Your task to perform on an android device: turn on bluetooth scan Image 0: 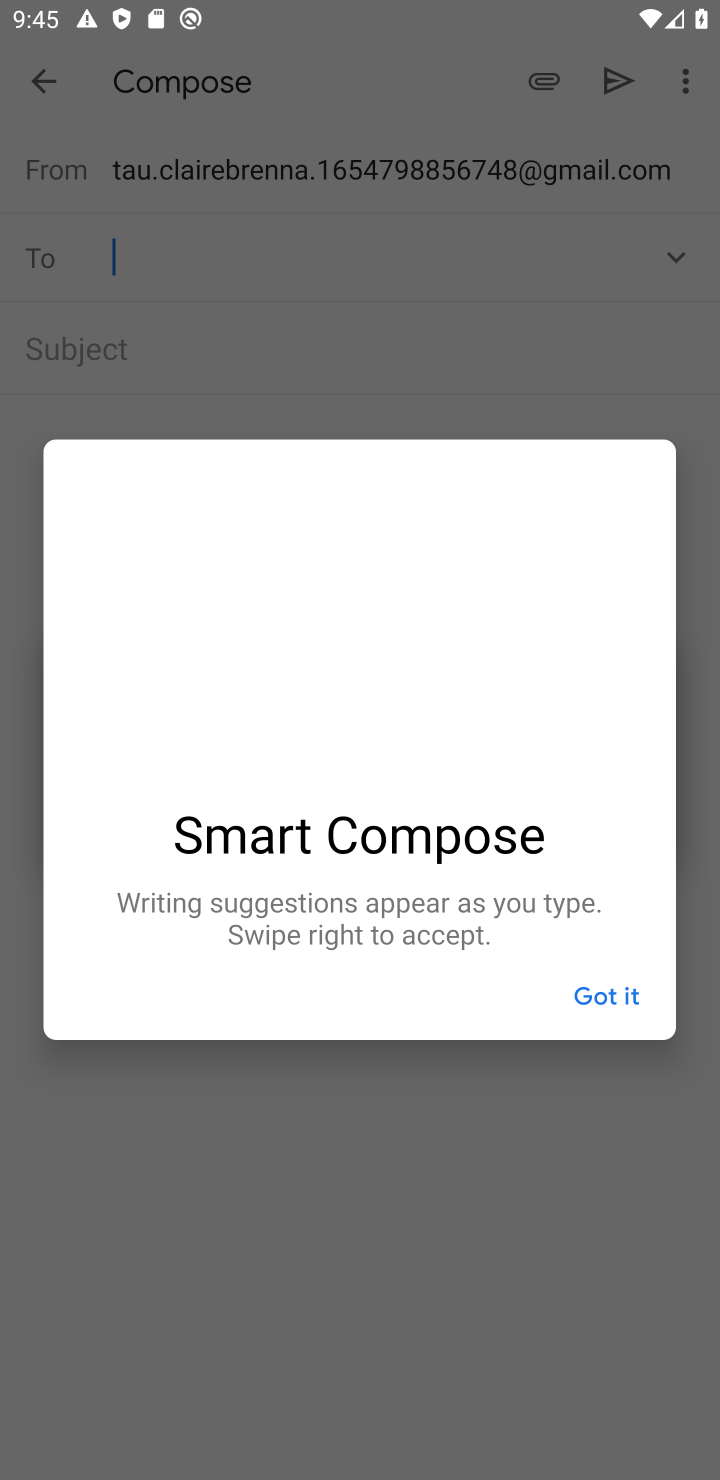
Step 0: press home button
Your task to perform on an android device: turn on bluetooth scan Image 1: 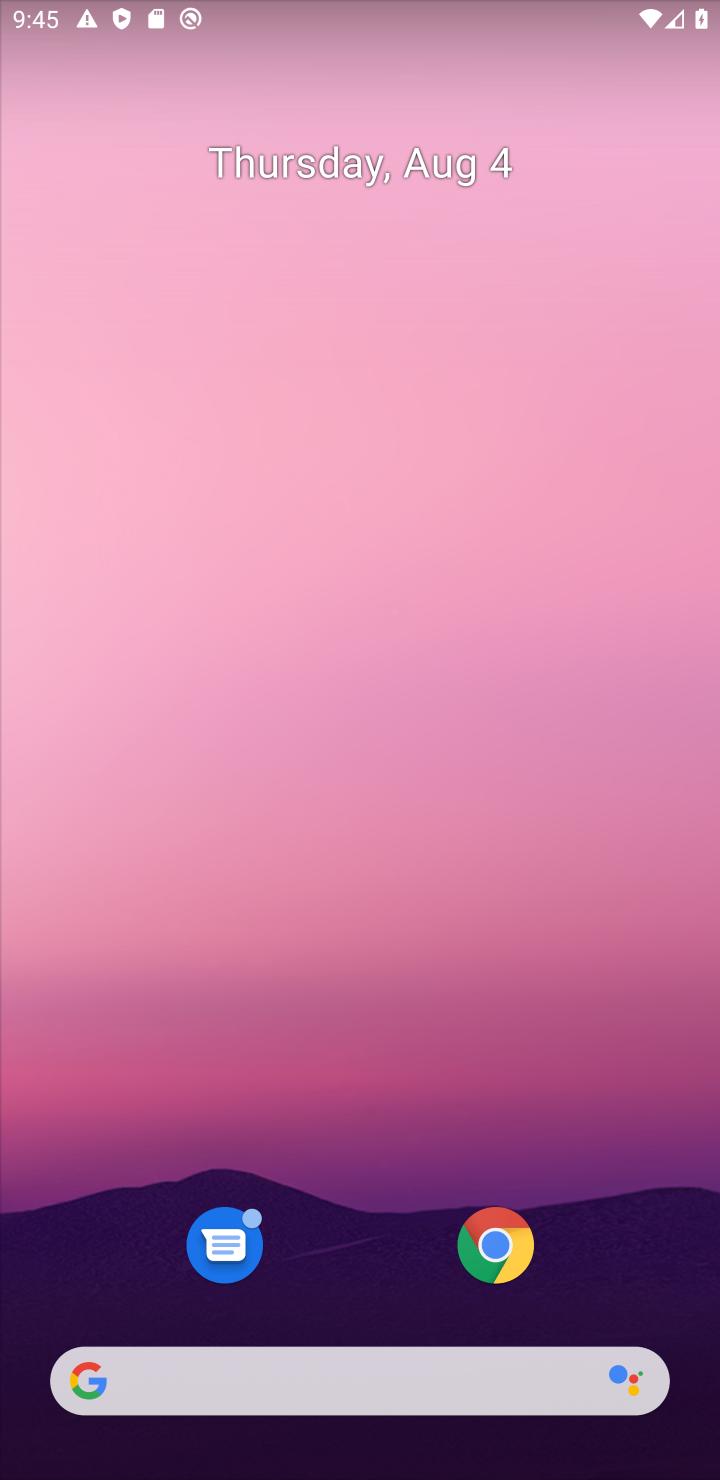
Step 1: drag from (419, 630) to (433, 244)
Your task to perform on an android device: turn on bluetooth scan Image 2: 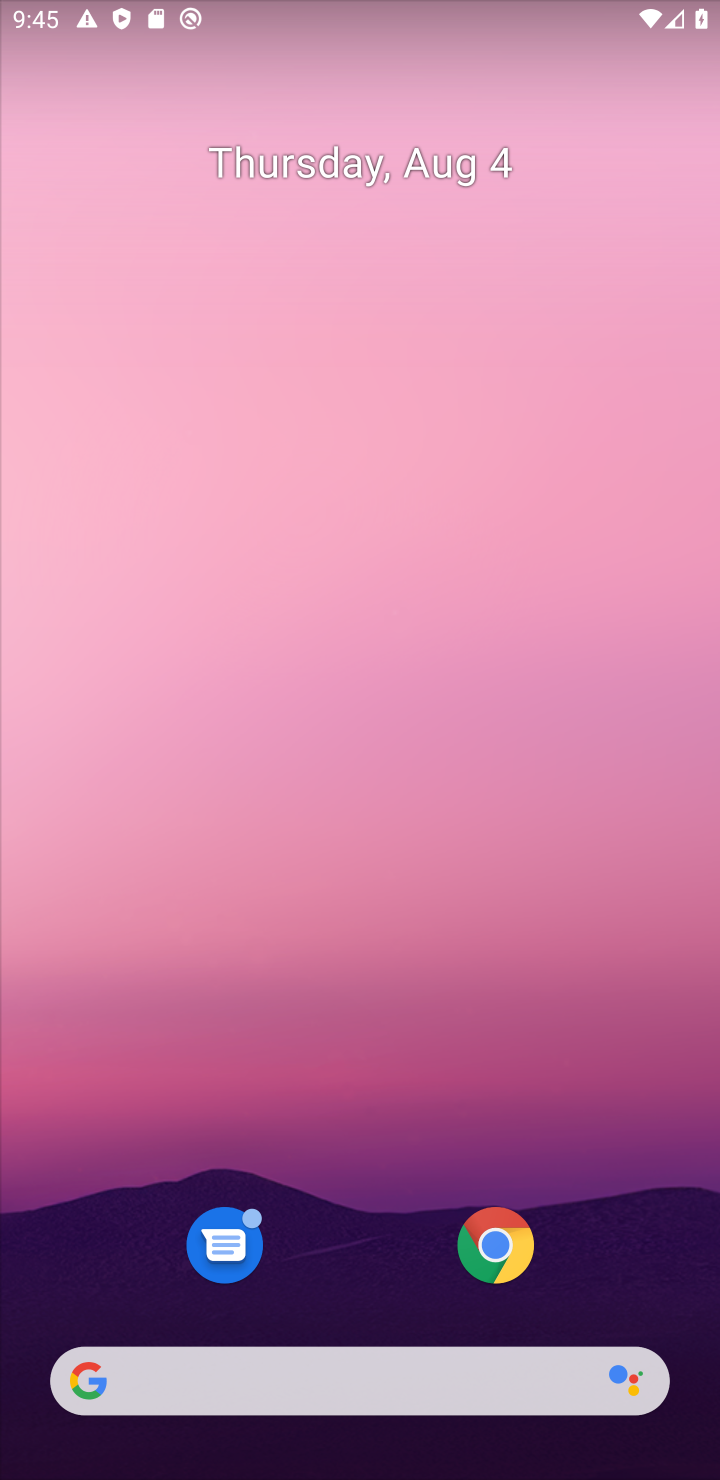
Step 2: drag from (329, 1177) to (218, 359)
Your task to perform on an android device: turn on bluetooth scan Image 3: 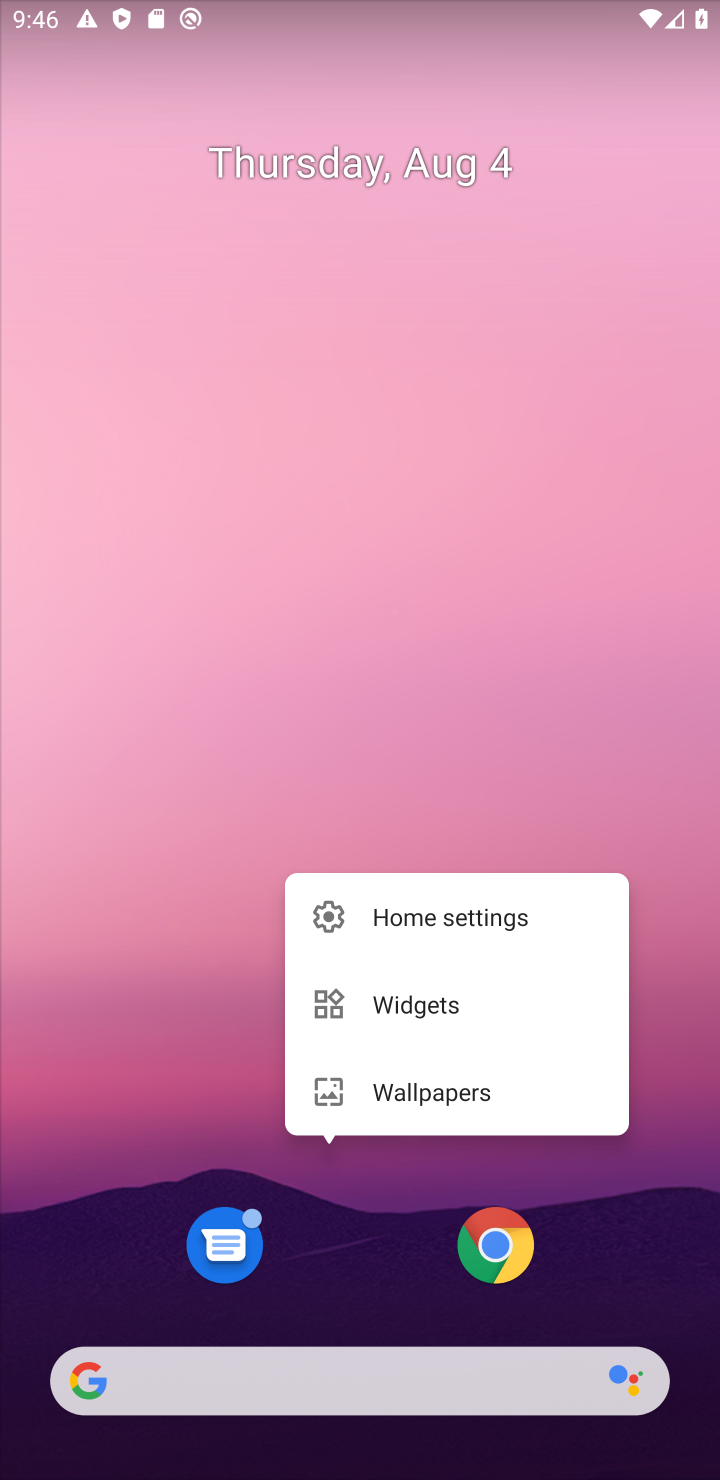
Step 3: click (366, 484)
Your task to perform on an android device: turn on bluetooth scan Image 4: 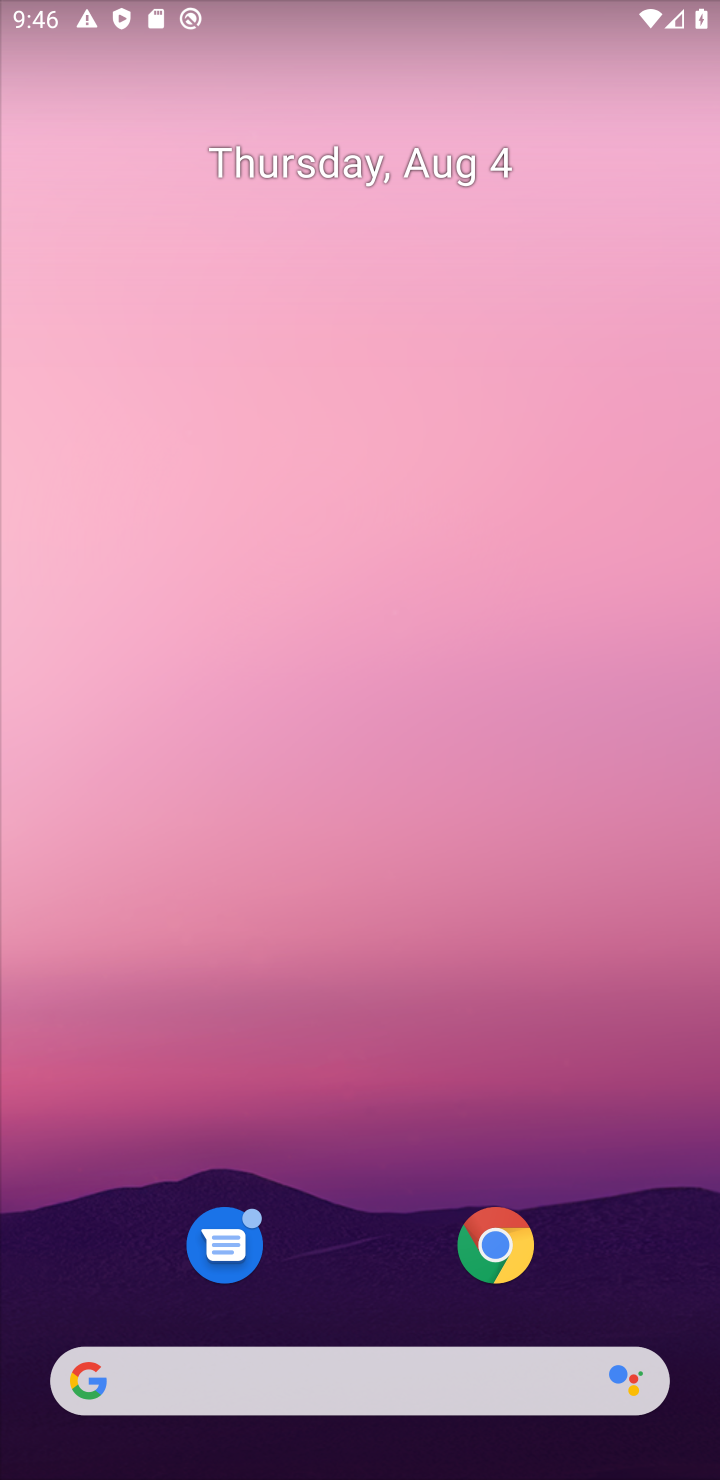
Step 4: drag from (629, 1175) to (570, 258)
Your task to perform on an android device: turn on bluetooth scan Image 5: 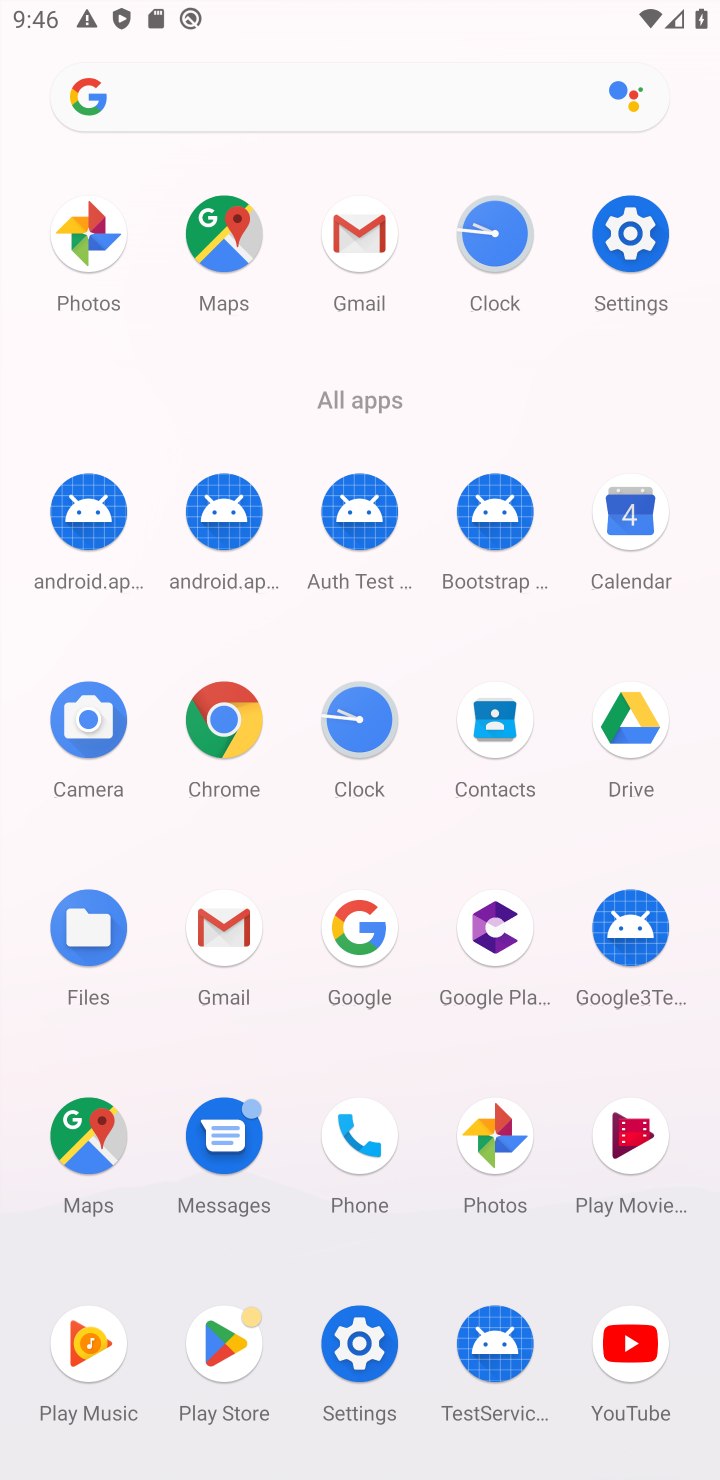
Step 5: click (356, 1337)
Your task to perform on an android device: turn on bluetooth scan Image 6: 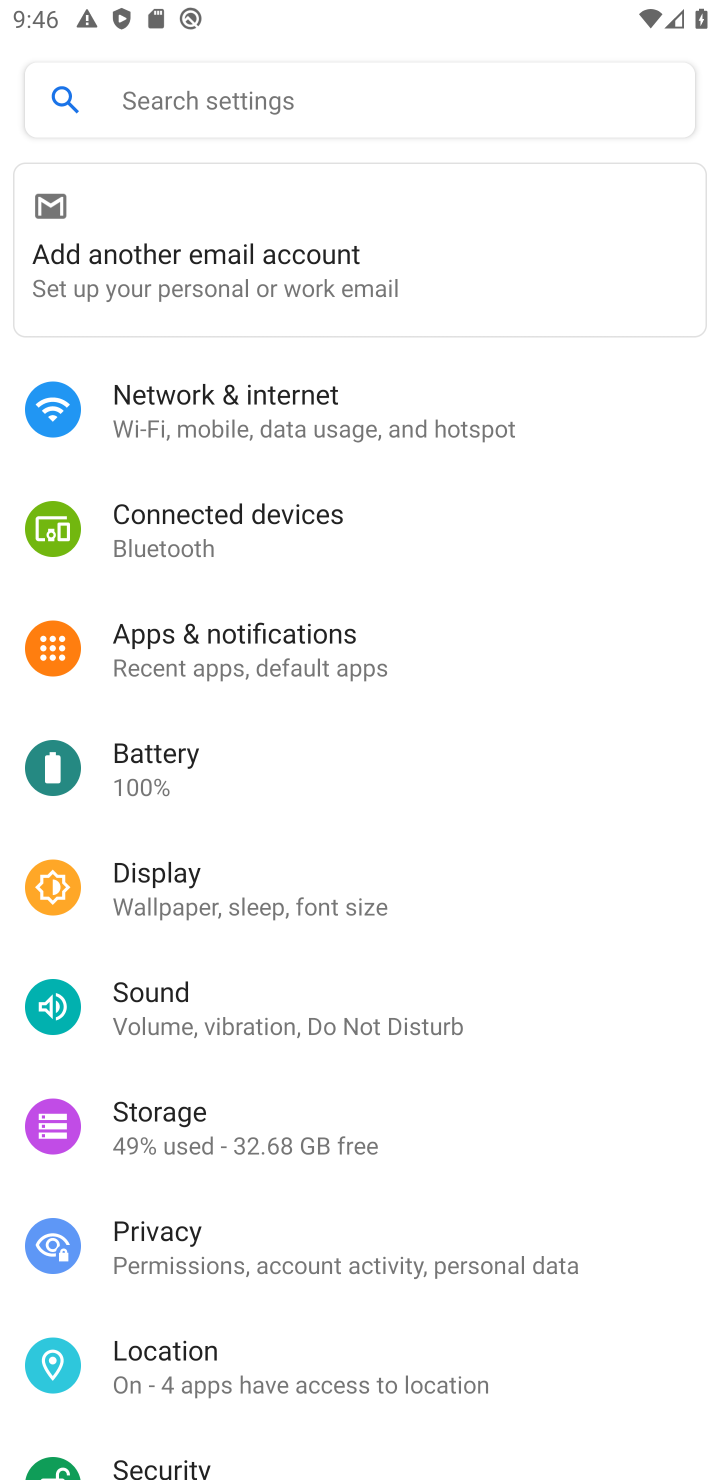
Step 6: click (160, 1362)
Your task to perform on an android device: turn on bluetooth scan Image 7: 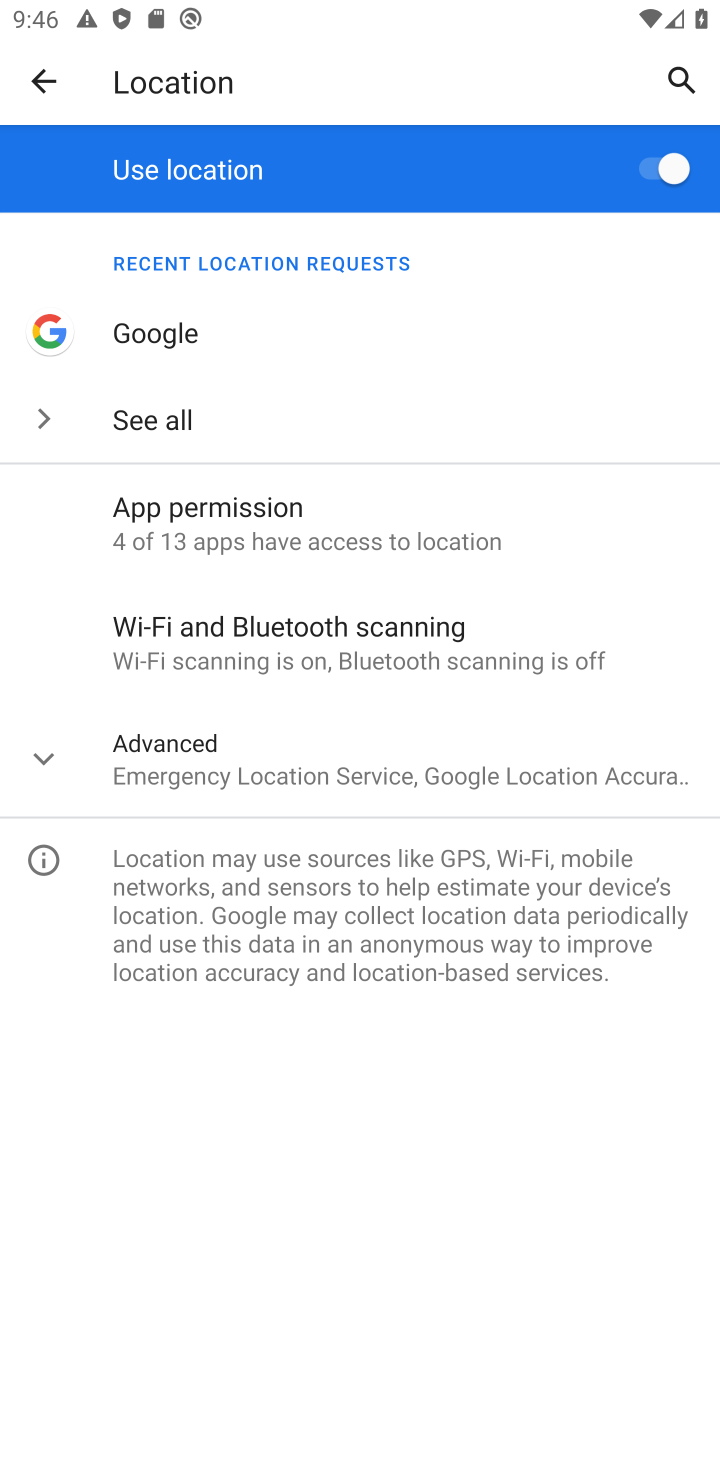
Step 7: click (206, 680)
Your task to perform on an android device: turn on bluetooth scan Image 8: 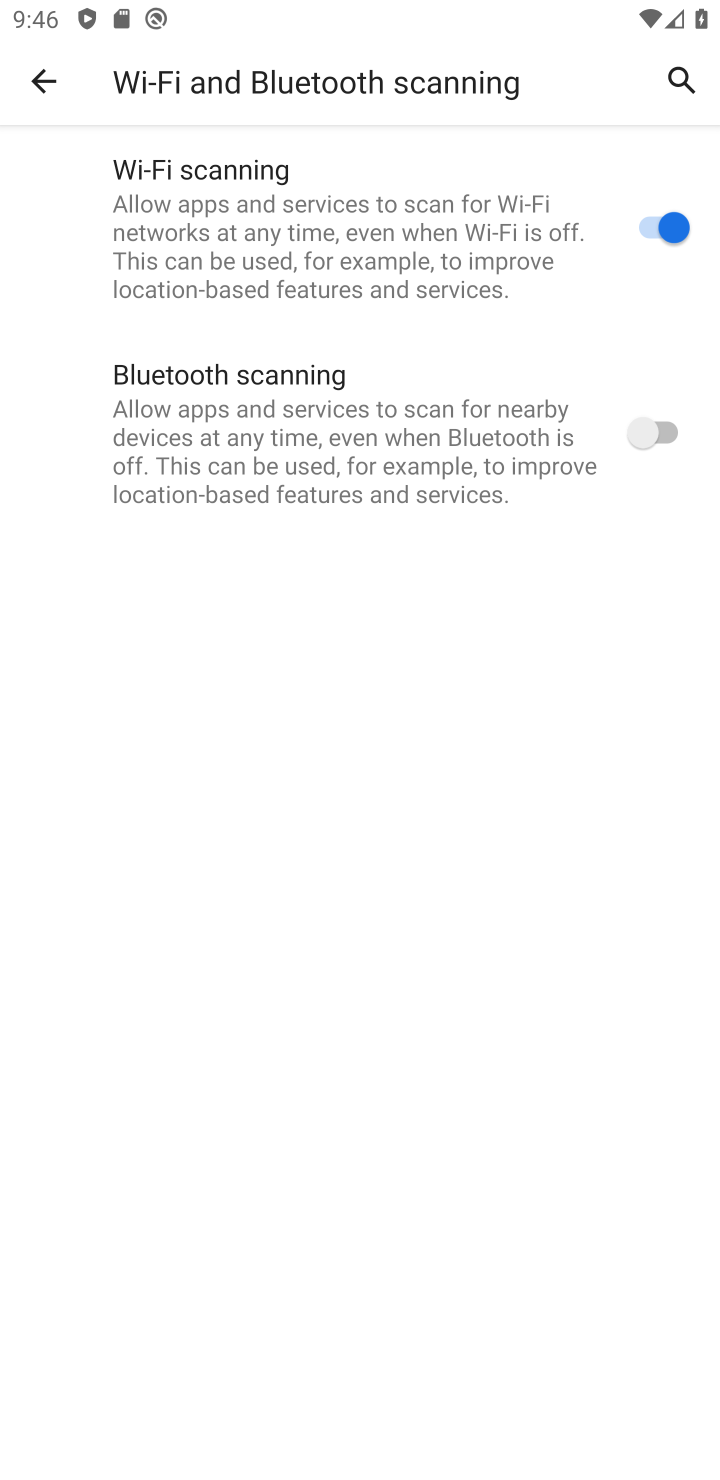
Step 8: click (594, 440)
Your task to perform on an android device: turn on bluetooth scan Image 9: 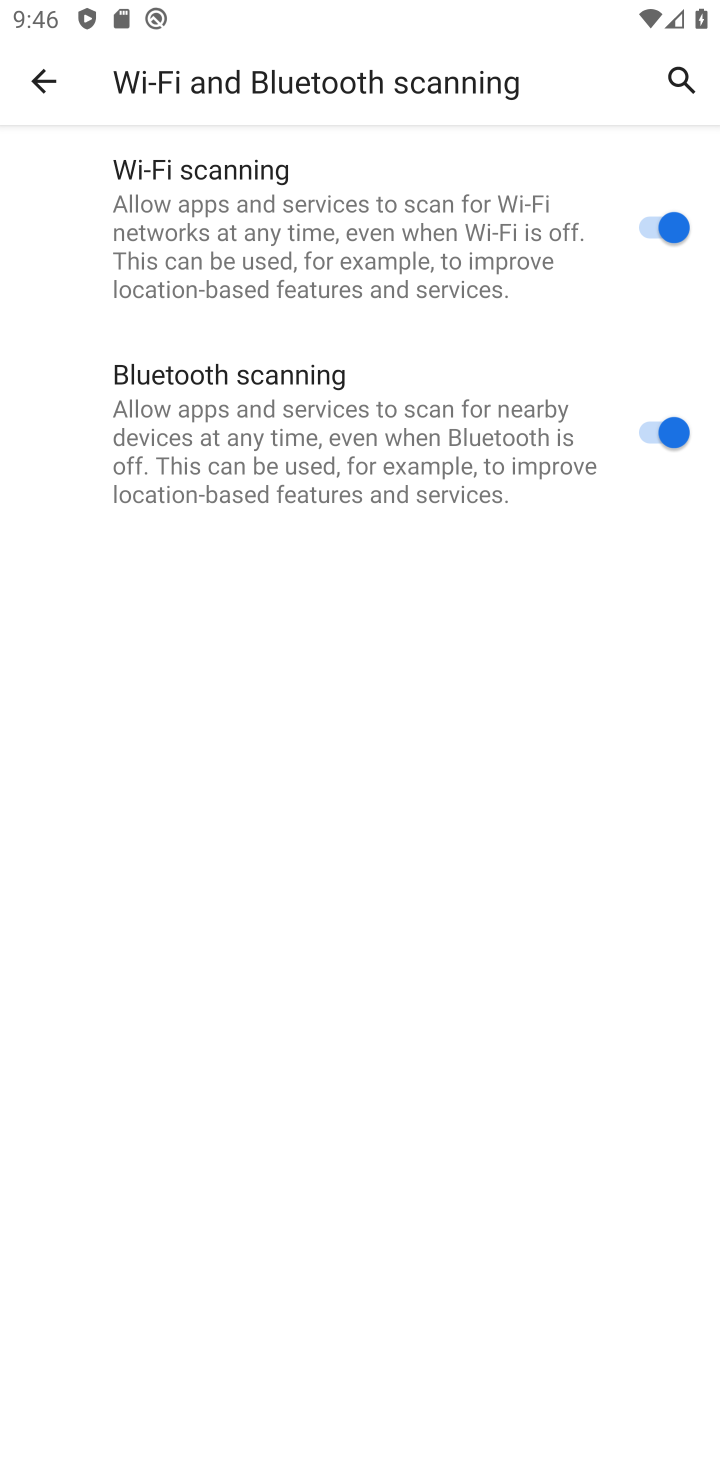
Step 9: task complete